Your task to perform on an android device: Empty the shopping cart on ebay. Add panasonic triple a to the cart on ebay, then select checkout. Image 0: 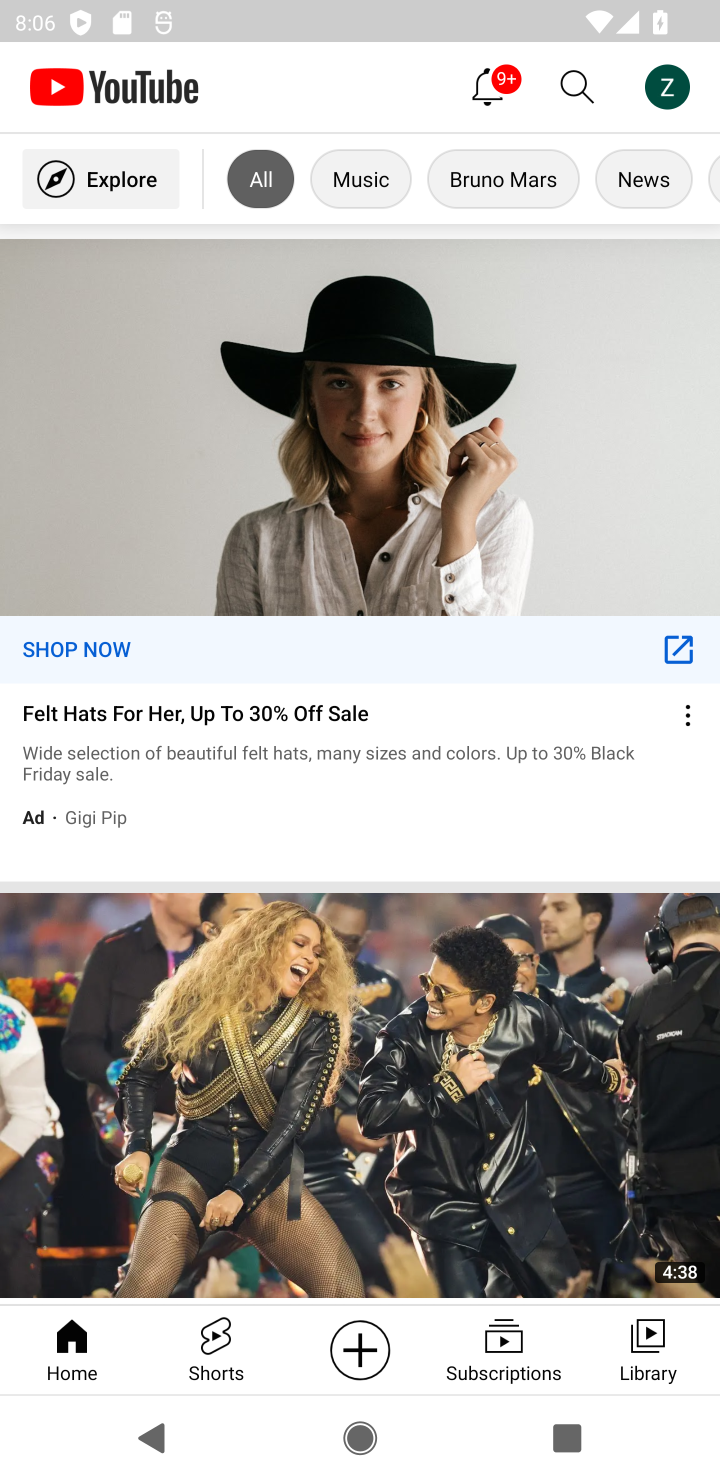
Step 0: press home button
Your task to perform on an android device: Empty the shopping cart on ebay. Add panasonic triple a to the cart on ebay, then select checkout. Image 1: 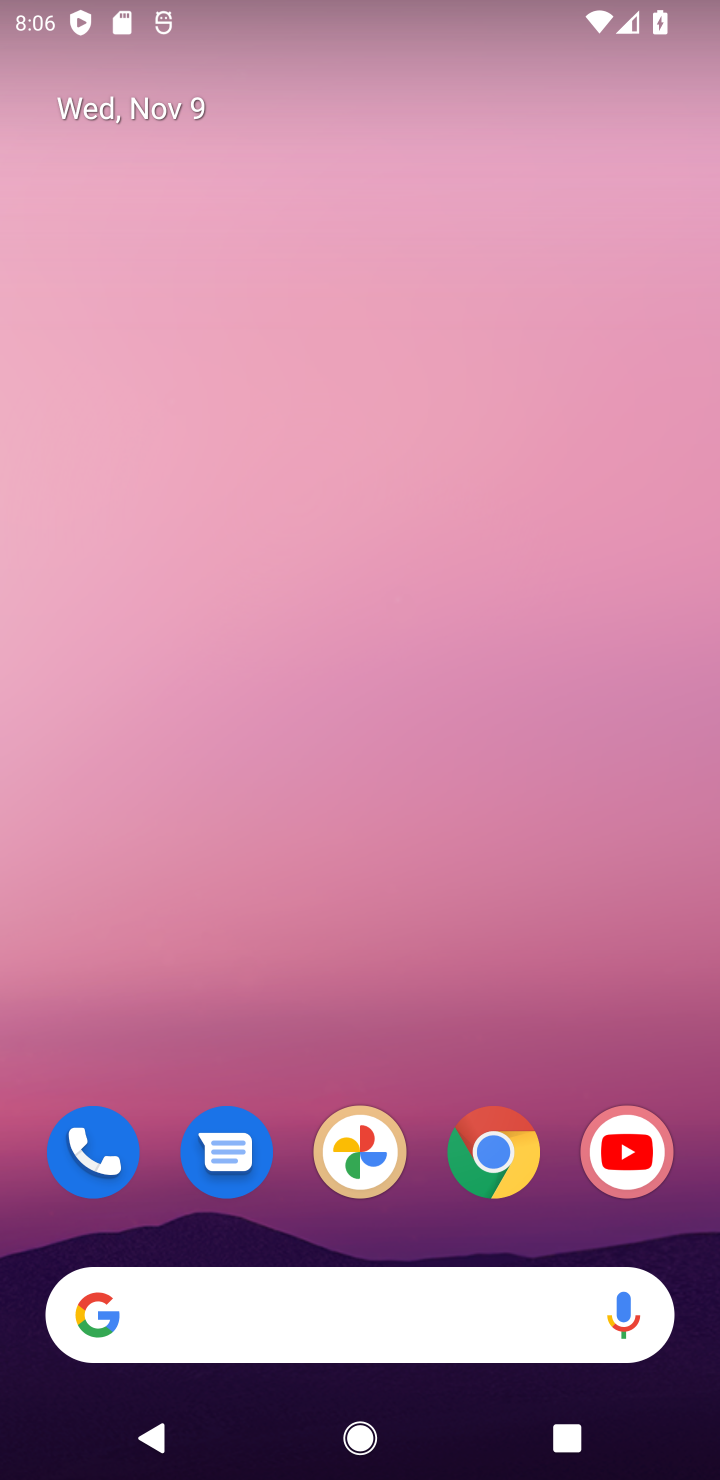
Step 1: click (493, 1150)
Your task to perform on an android device: Empty the shopping cart on ebay. Add panasonic triple a to the cart on ebay, then select checkout. Image 2: 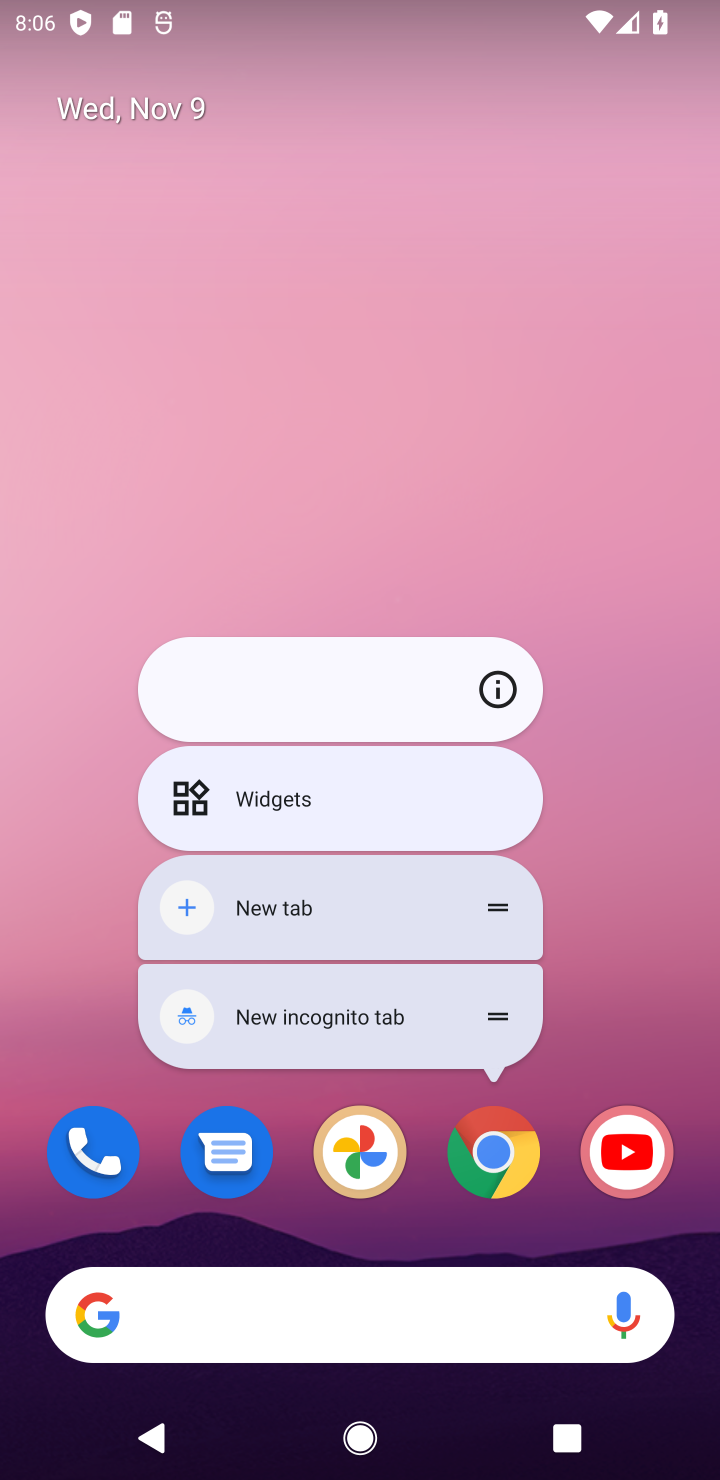
Step 2: click (495, 1159)
Your task to perform on an android device: Empty the shopping cart on ebay. Add panasonic triple a to the cart on ebay, then select checkout. Image 3: 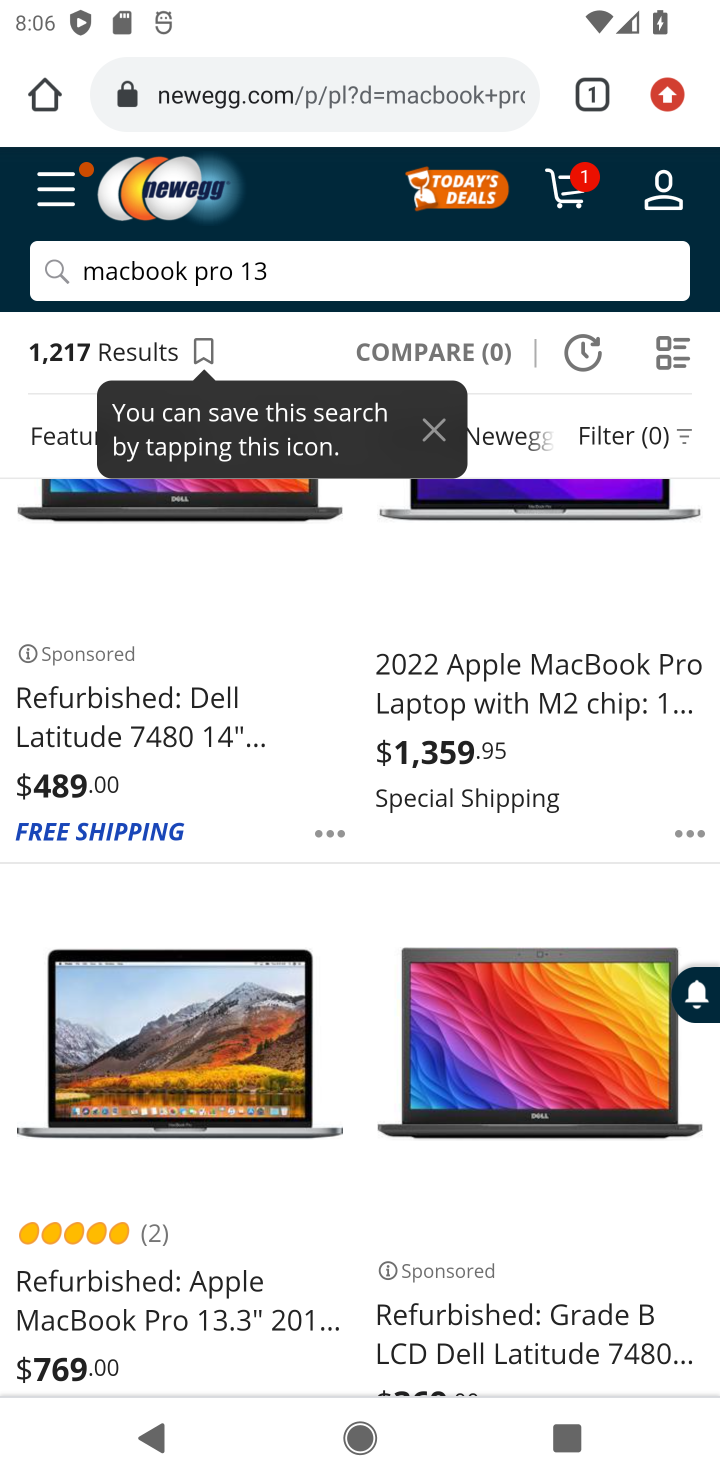
Step 3: click (283, 88)
Your task to perform on an android device: Empty the shopping cart on ebay. Add panasonic triple a to the cart on ebay, then select checkout. Image 4: 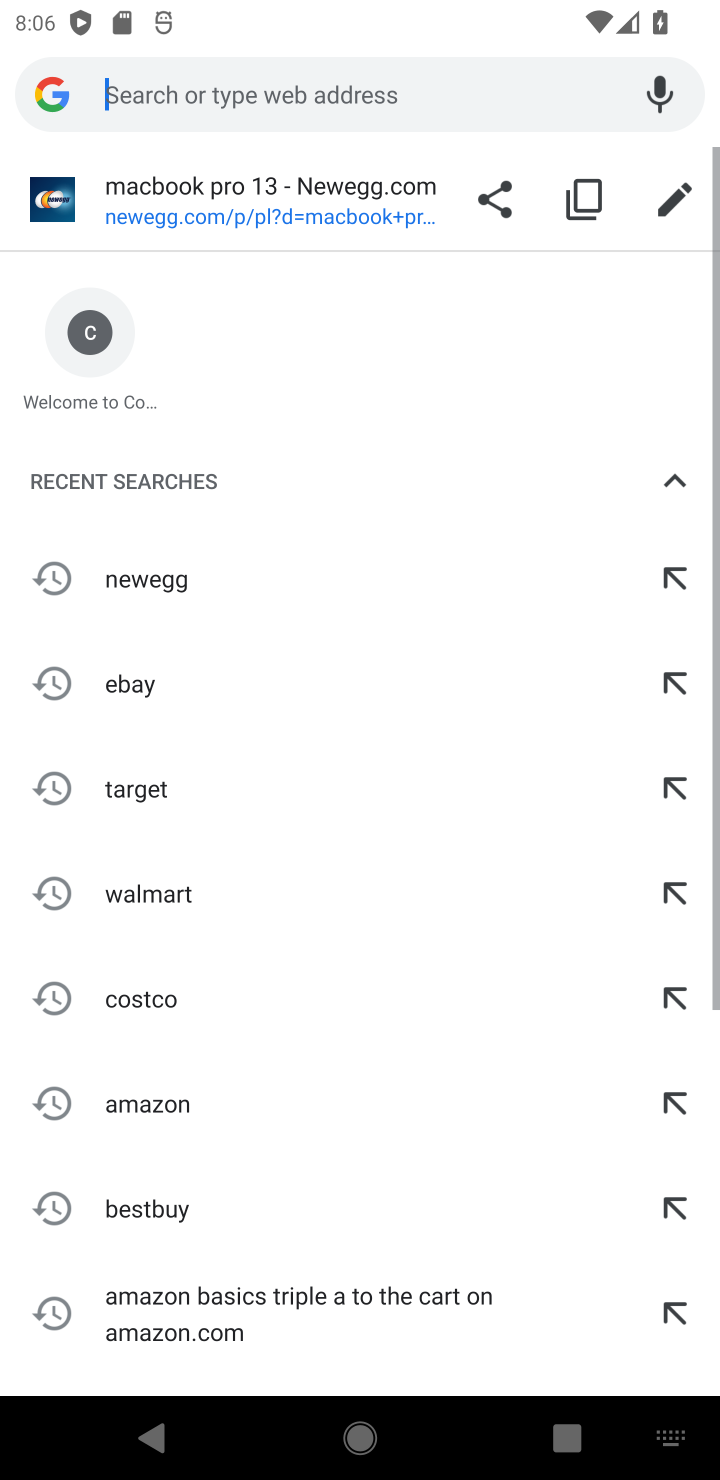
Step 4: click (139, 678)
Your task to perform on an android device: Empty the shopping cart on ebay. Add panasonic triple a to the cart on ebay, then select checkout. Image 5: 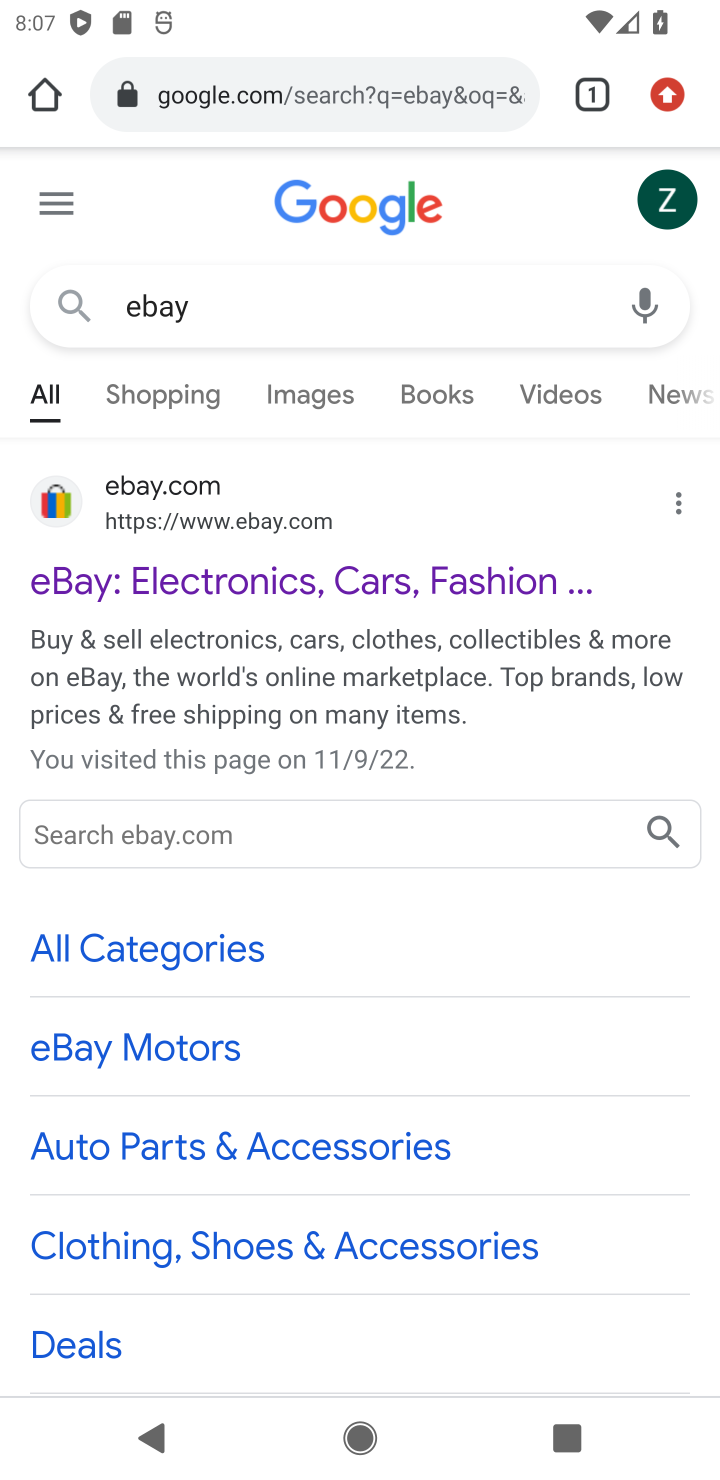
Step 5: click (170, 565)
Your task to perform on an android device: Empty the shopping cart on ebay. Add panasonic triple a to the cart on ebay, then select checkout. Image 6: 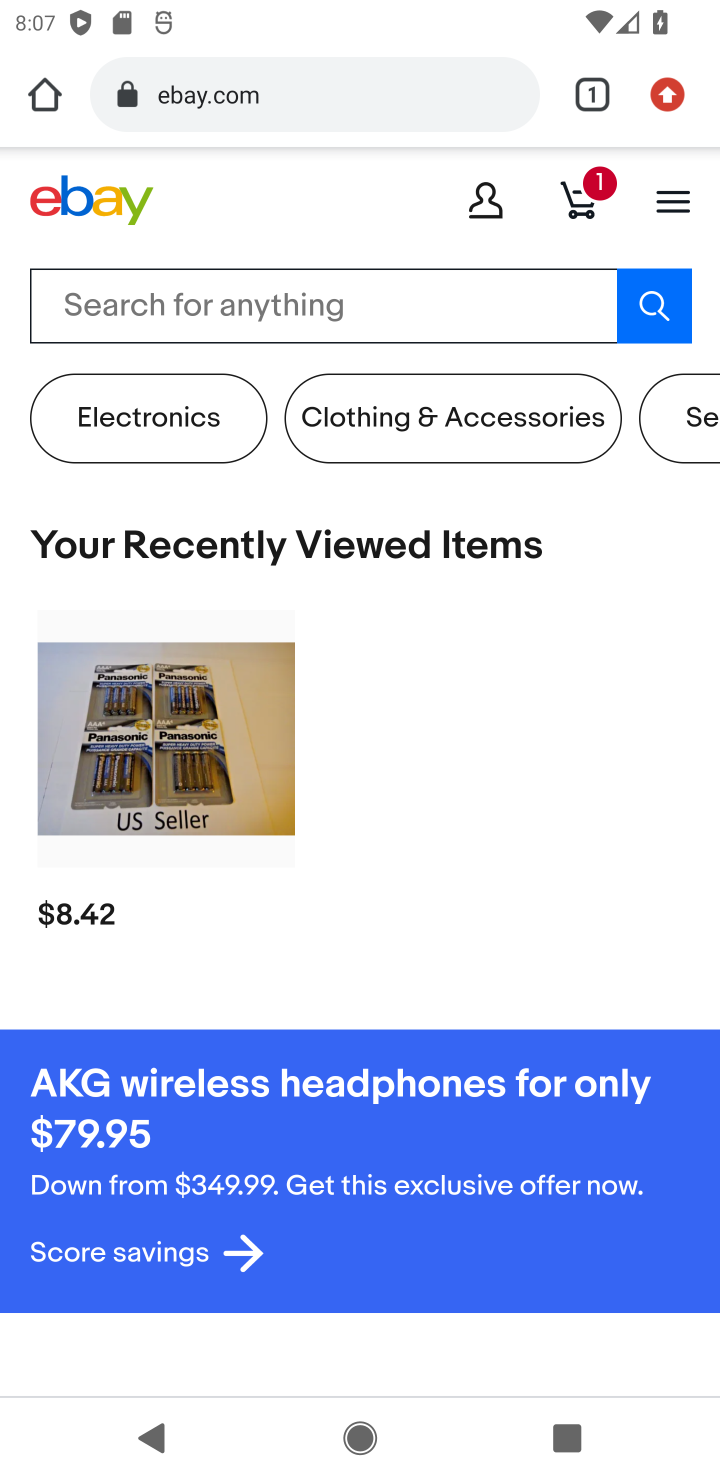
Step 6: click (343, 299)
Your task to perform on an android device: Empty the shopping cart on ebay. Add panasonic triple a to the cart on ebay, then select checkout. Image 7: 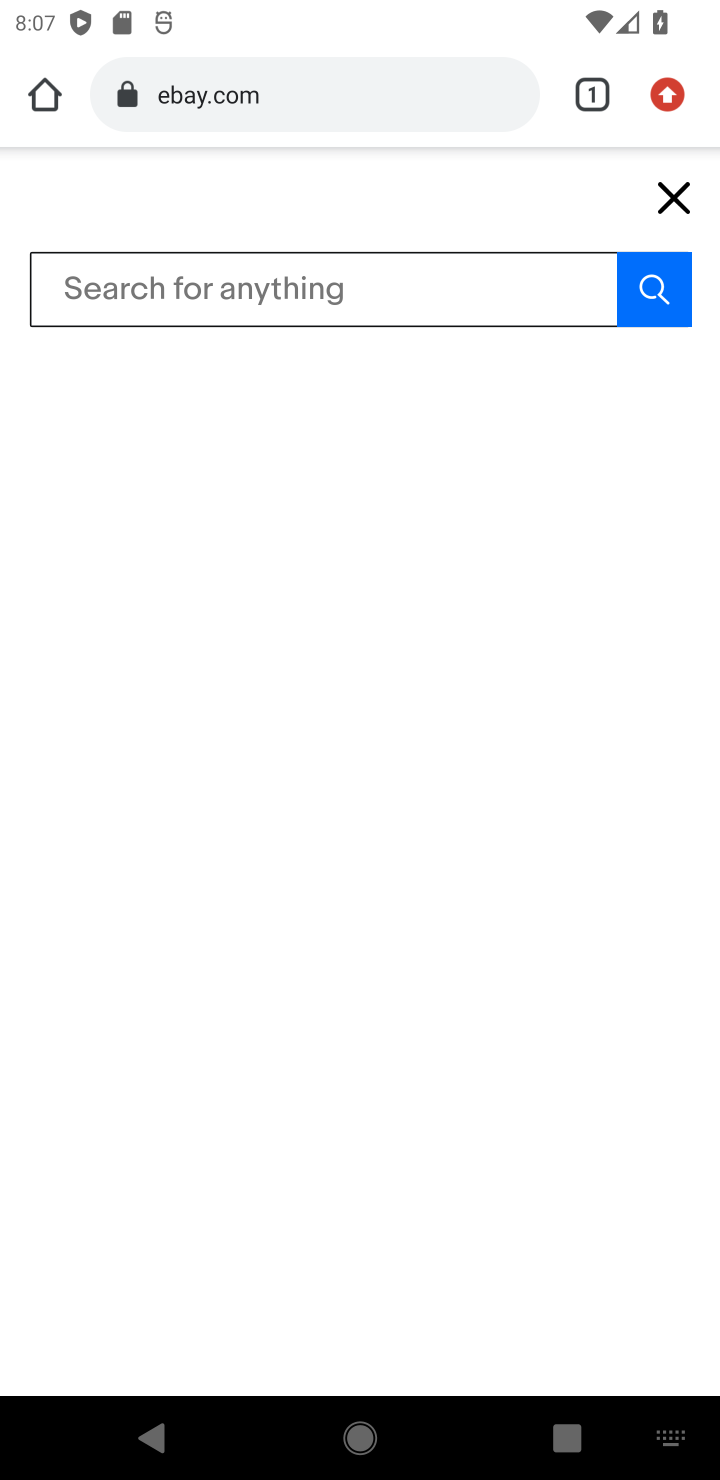
Step 7: type "panasonic triple a"
Your task to perform on an android device: Empty the shopping cart on ebay. Add panasonic triple a to the cart on ebay, then select checkout. Image 8: 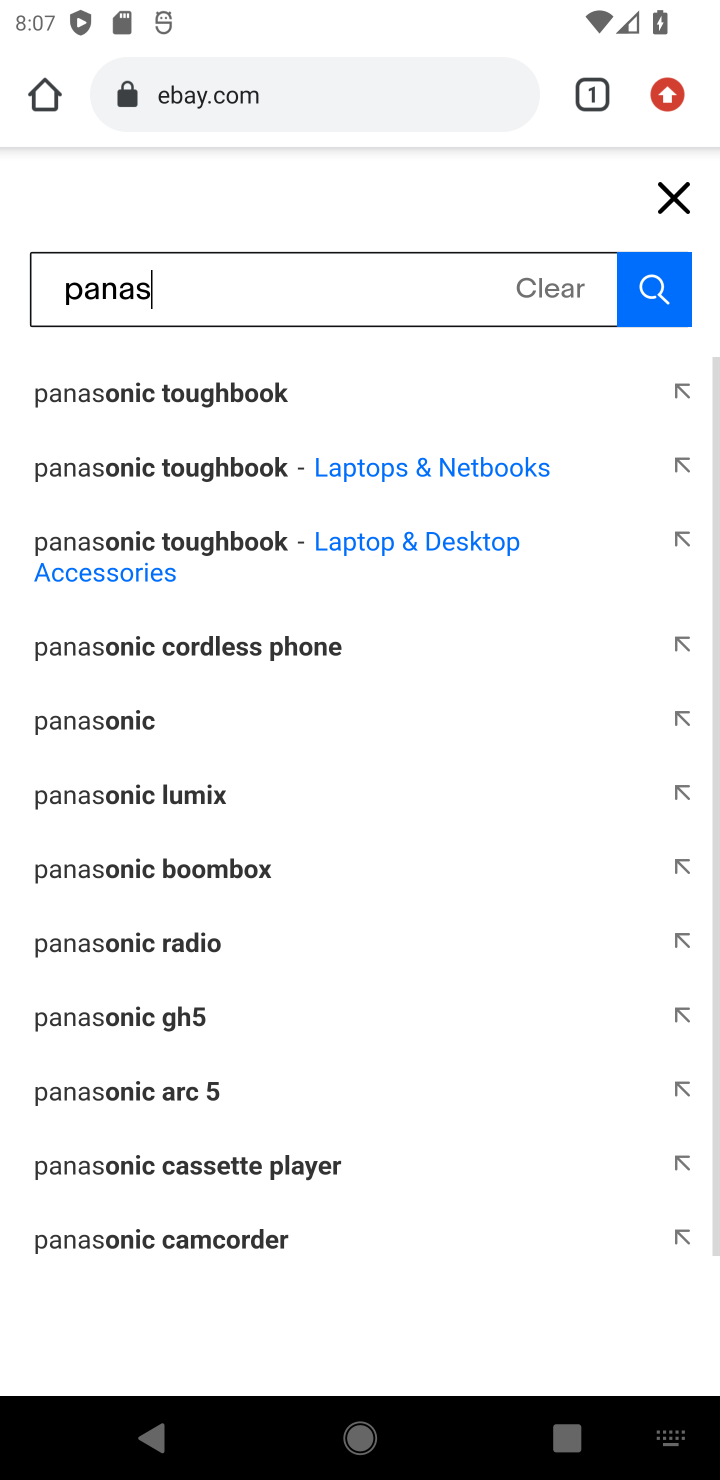
Step 8: press enter
Your task to perform on an android device: Empty the shopping cart on ebay. Add panasonic triple a to the cart on ebay, then select checkout. Image 9: 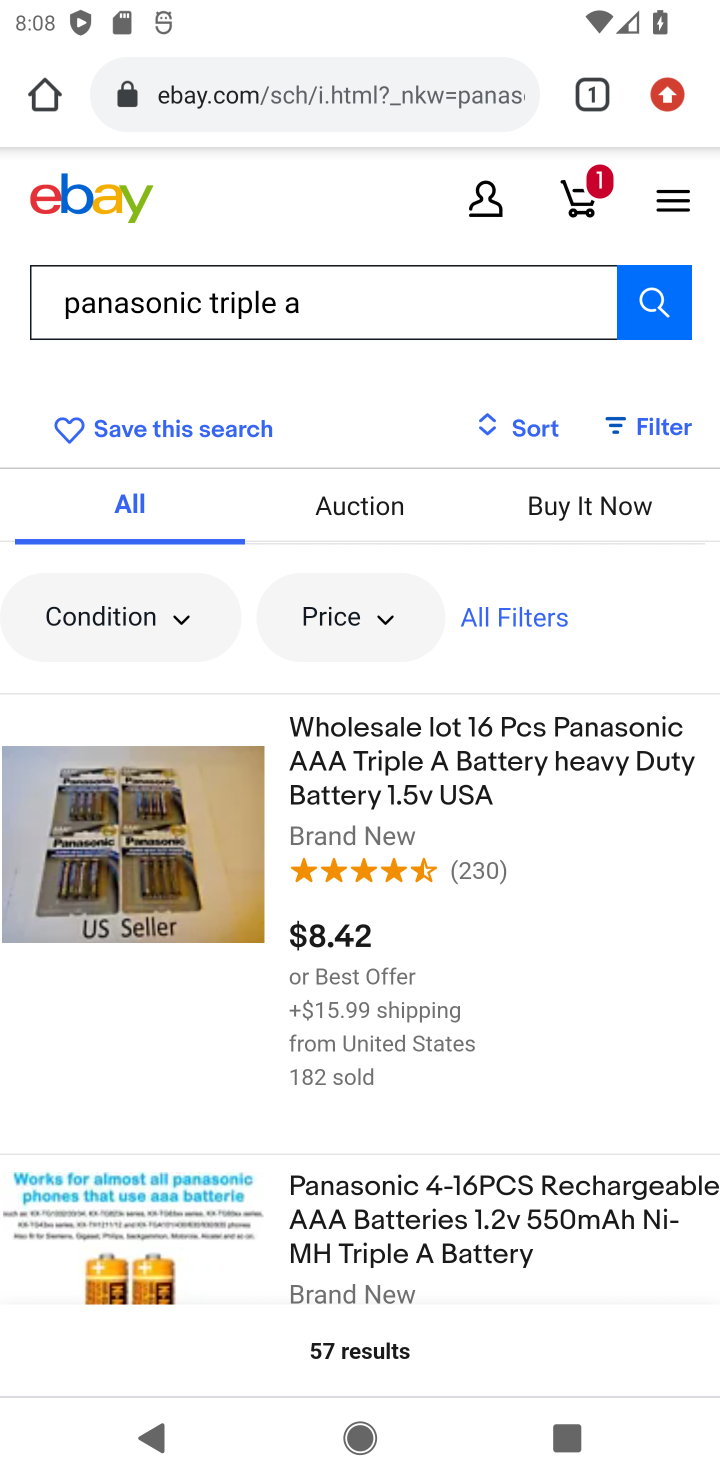
Step 9: click (459, 776)
Your task to perform on an android device: Empty the shopping cart on ebay. Add panasonic triple a to the cart on ebay, then select checkout. Image 10: 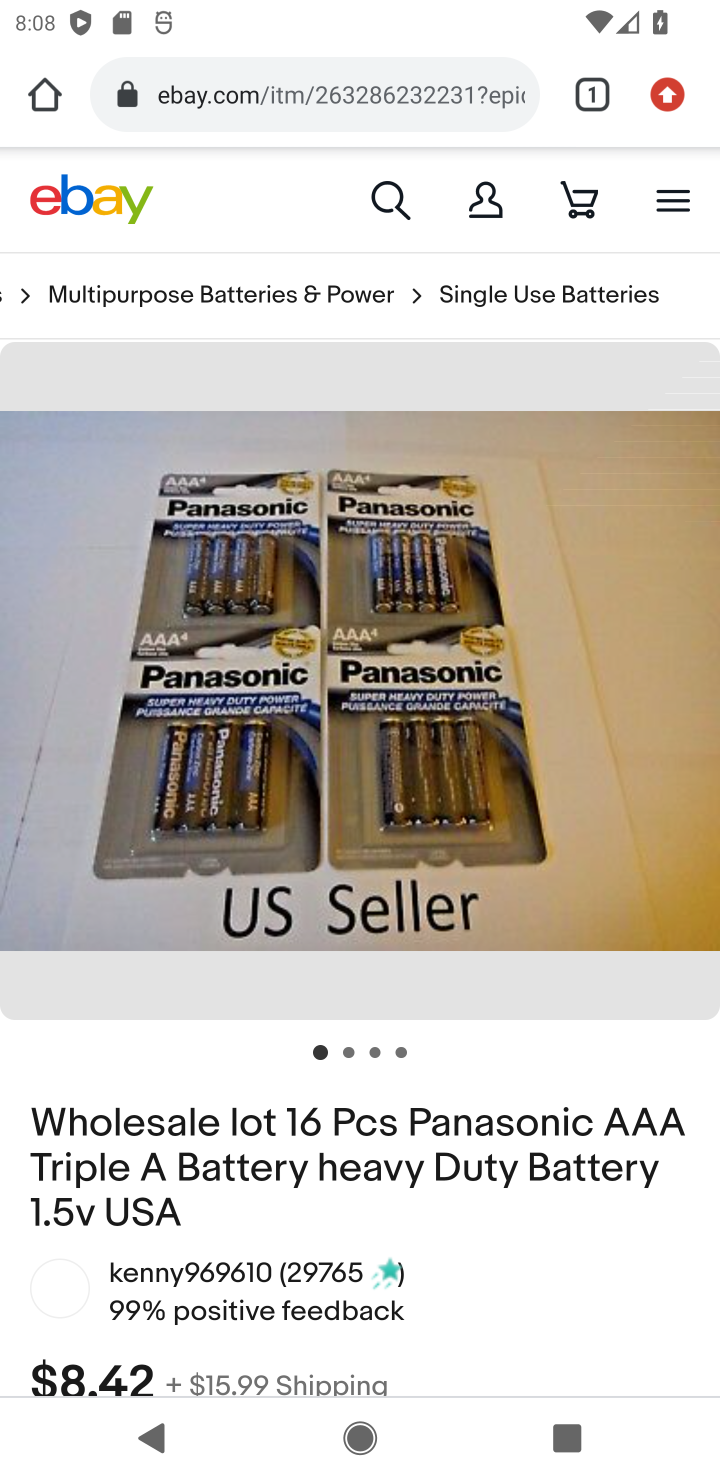
Step 10: drag from (310, 1241) to (617, 127)
Your task to perform on an android device: Empty the shopping cart on ebay. Add panasonic triple a to the cart on ebay, then select checkout. Image 11: 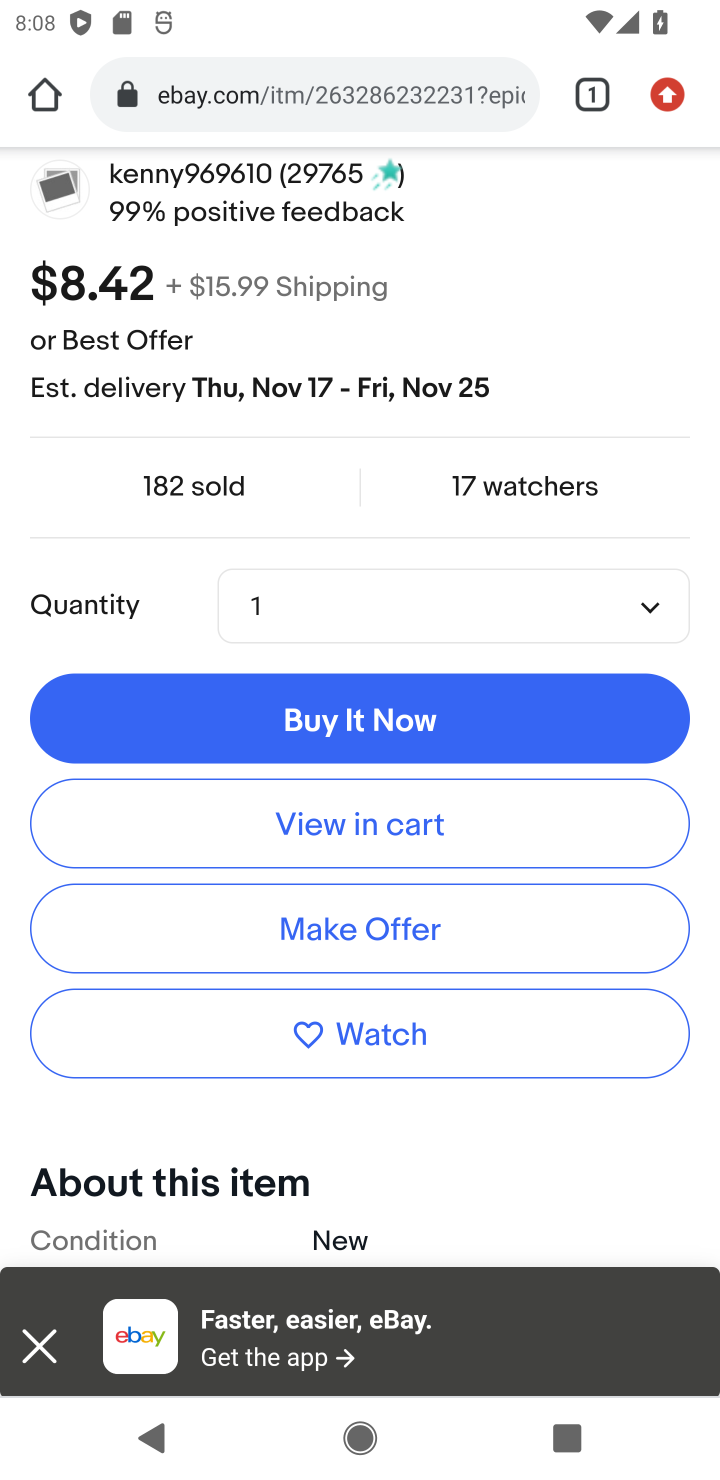
Step 11: click (373, 821)
Your task to perform on an android device: Empty the shopping cart on ebay. Add panasonic triple a to the cart on ebay, then select checkout. Image 12: 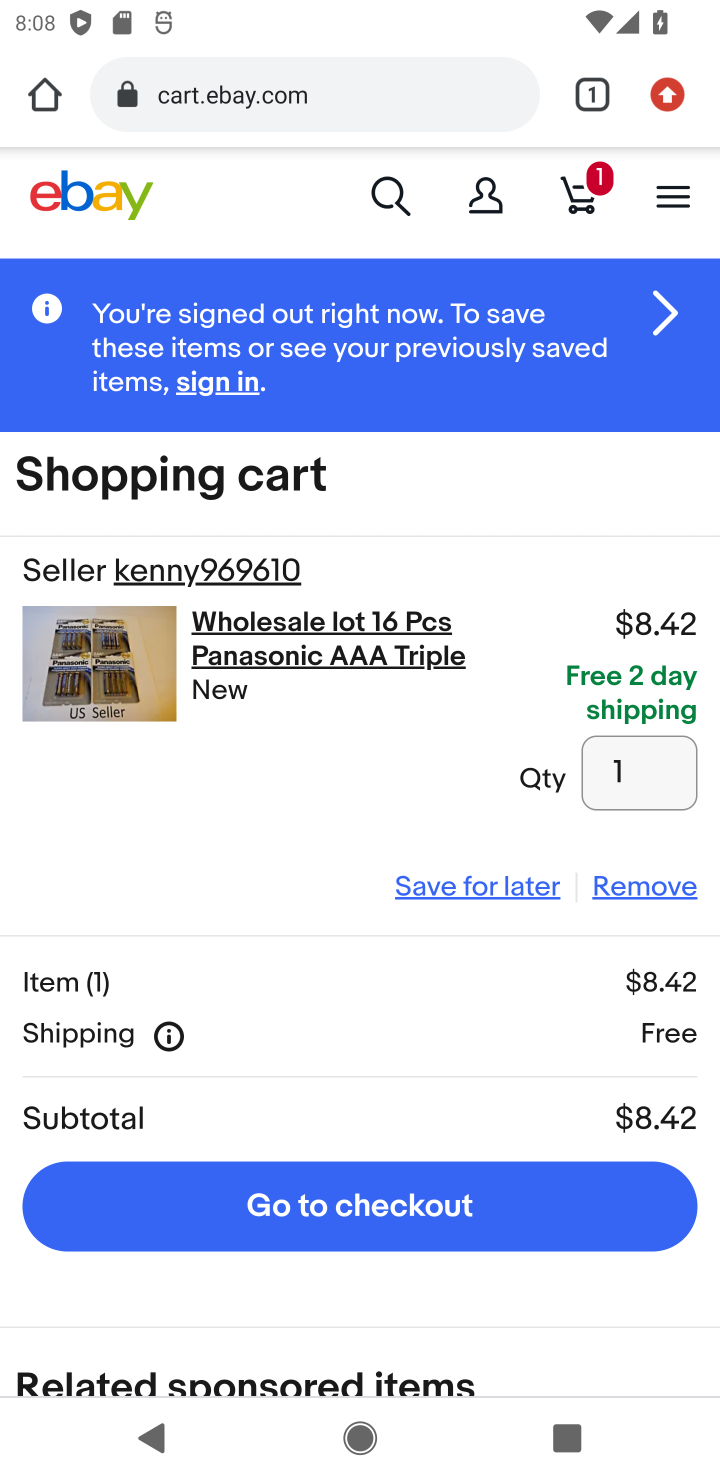
Step 12: click (400, 1185)
Your task to perform on an android device: Empty the shopping cart on ebay. Add panasonic triple a to the cart on ebay, then select checkout. Image 13: 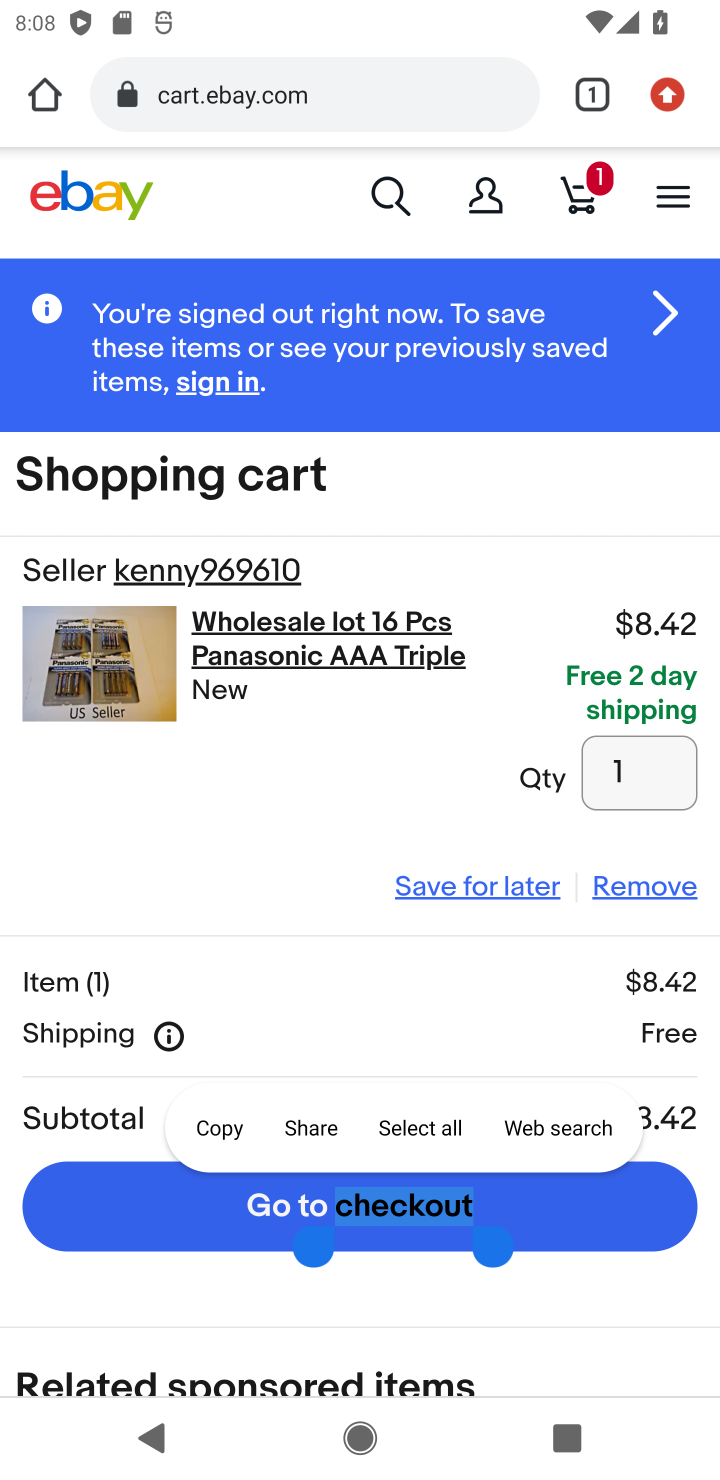
Step 13: click (385, 1192)
Your task to perform on an android device: Empty the shopping cart on ebay. Add panasonic triple a to the cart on ebay, then select checkout. Image 14: 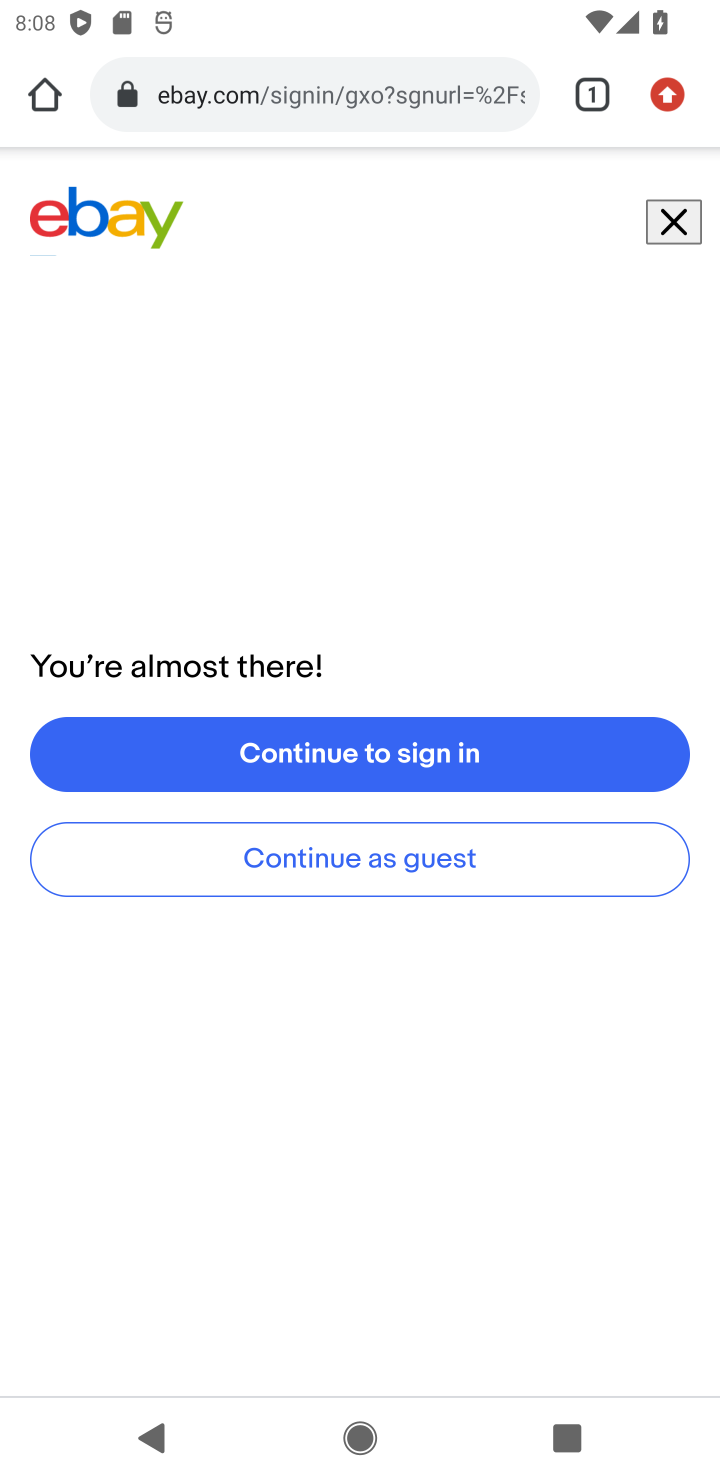
Step 14: press back button
Your task to perform on an android device: Empty the shopping cart on ebay. Add panasonic triple a to the cart on ebay, then select checkout. Image 15: 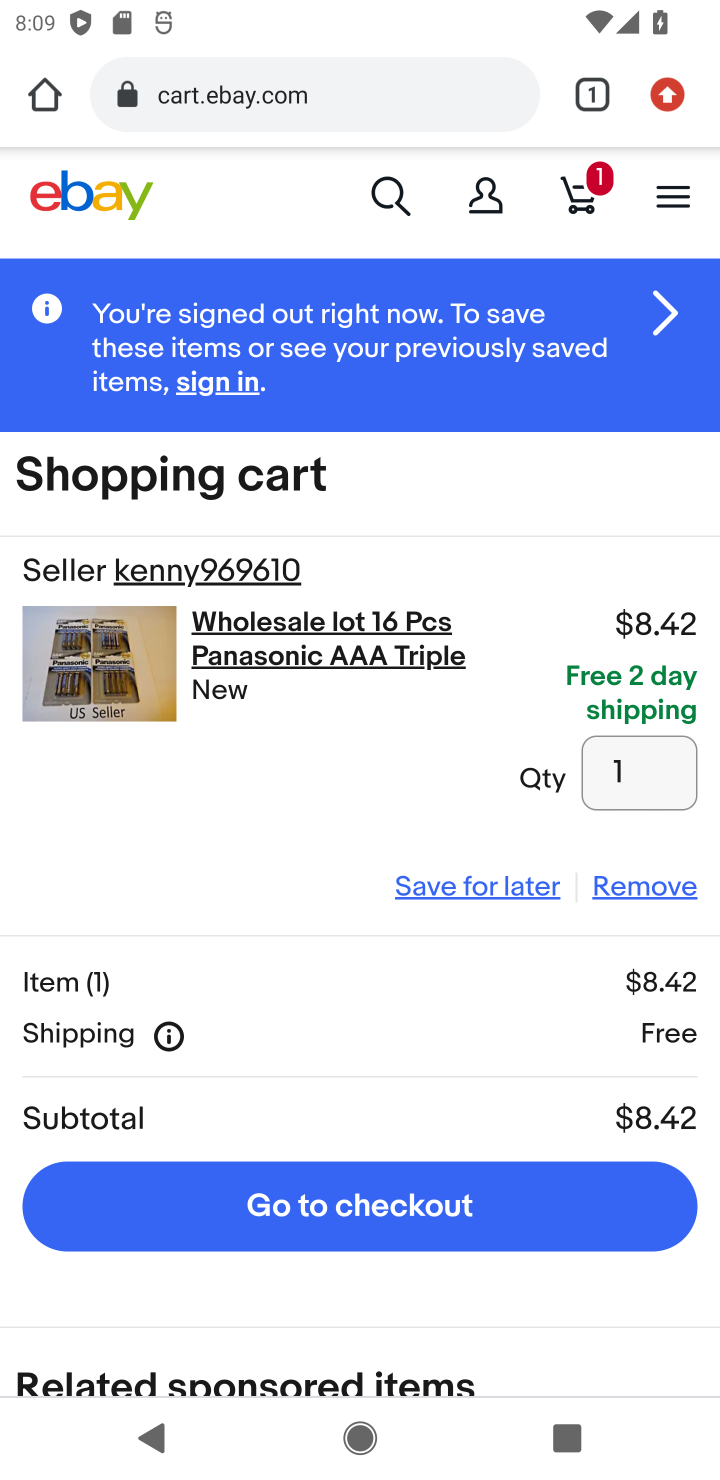
Step 15: press home button
Your task to perform on an android device: Empty the shopping cart on ebay. Add panasonic triple a to the cart on ebay, then select checkout. Image 16: 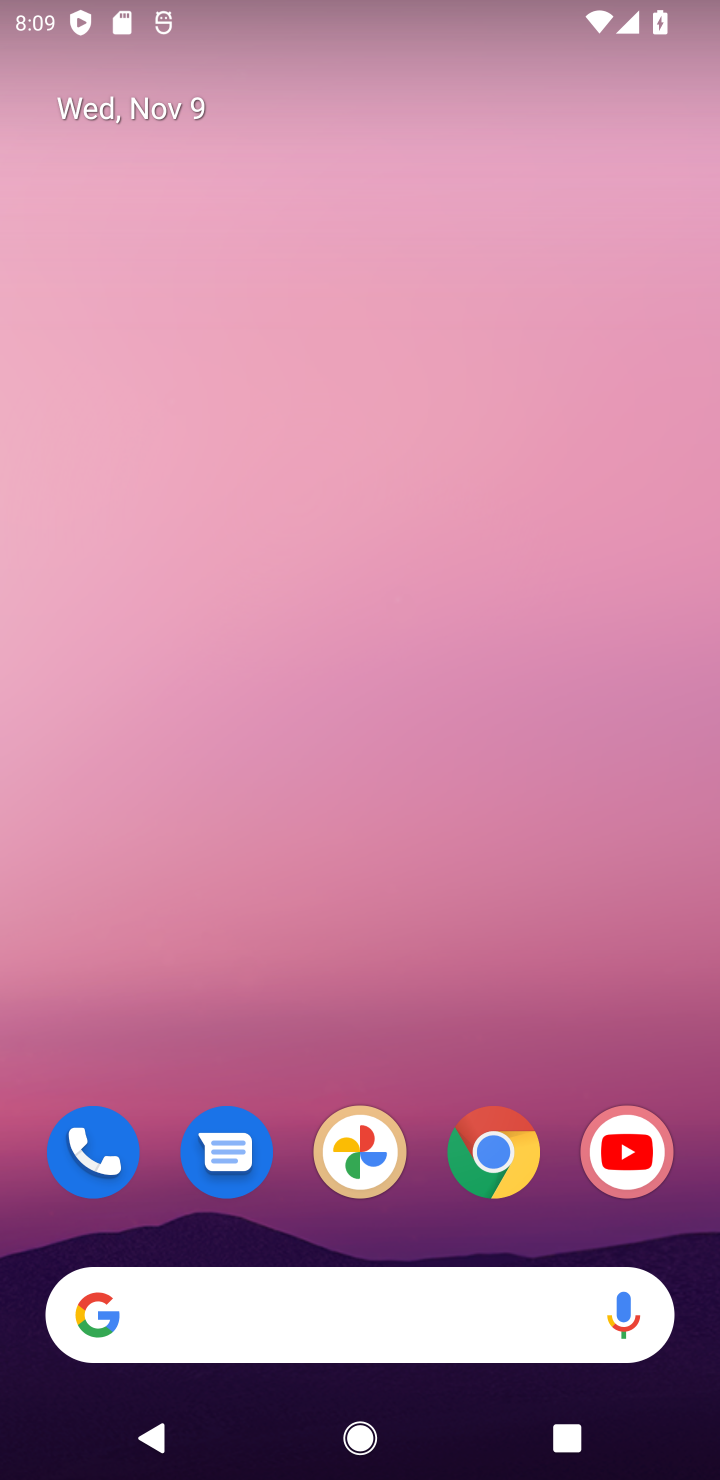
Step 16: click (494, 1178)
Your task to perform on an android device: Empty the shopping cart on ebay. Add panasonic triple a to the cart on ebay, then select checkout. Image 17: 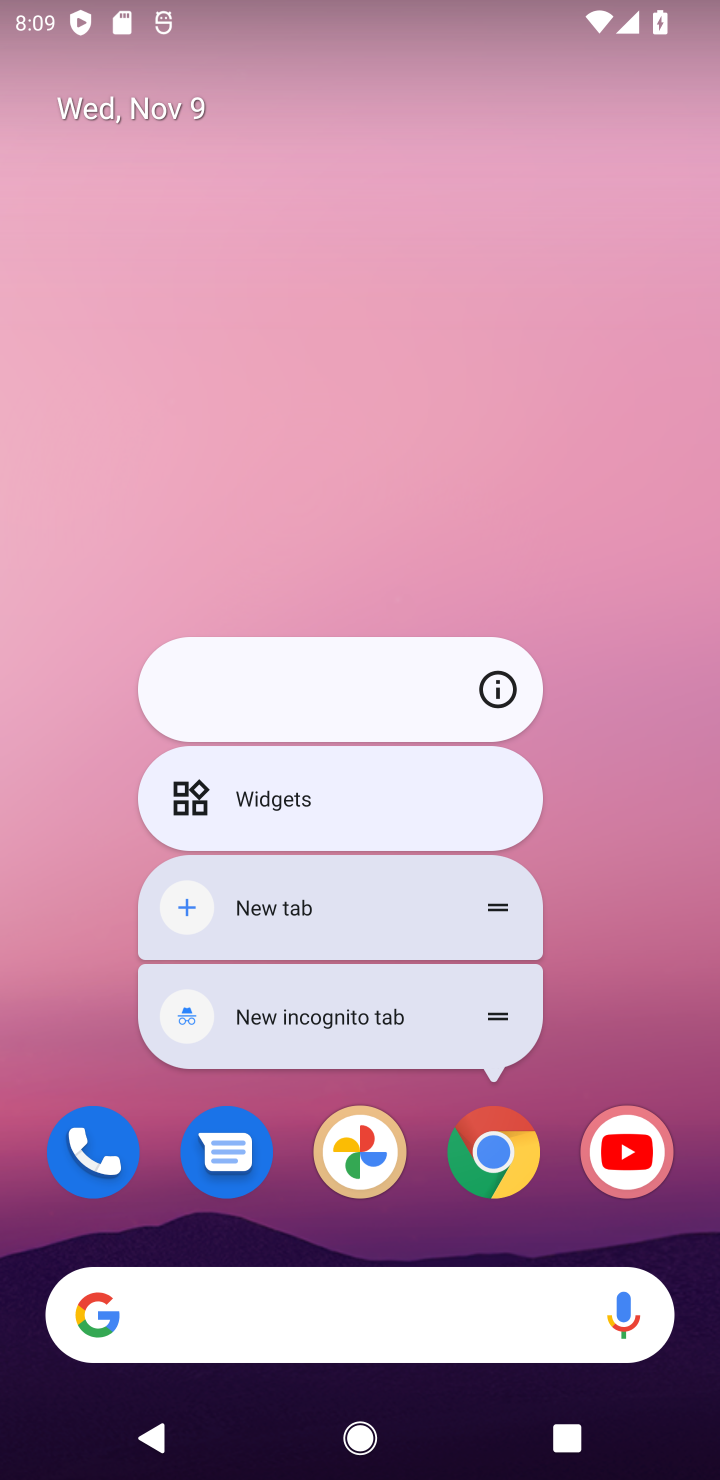
Step 17: task complete